Your task to perform on an android device: change timer sound Image 0: 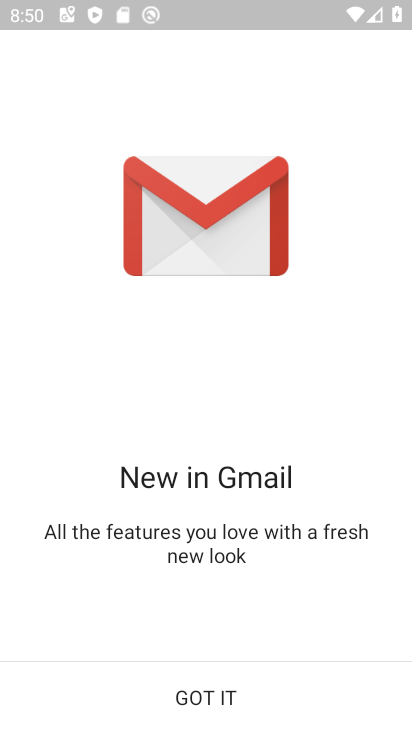
Step 0: press home button
Your task to perform on an android device: change timer sound Image 1: 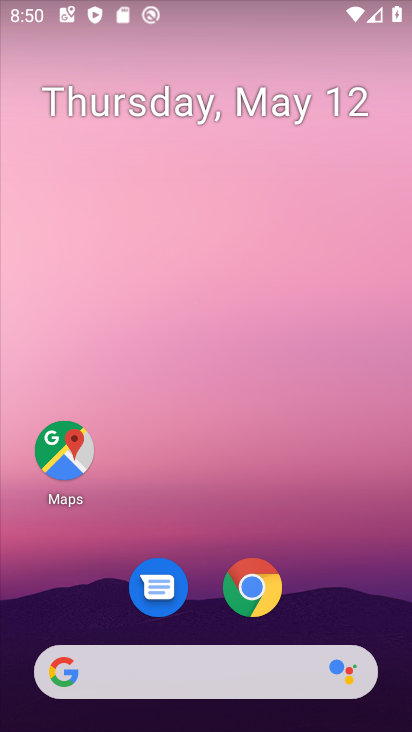
Step 1: drag from (328, 543) to (273, 168)
Your task to perform on an android device: change timer sound Image 2: 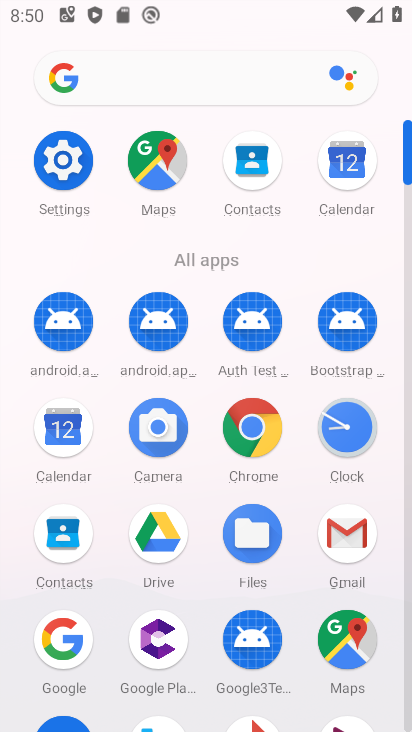
Step 2: click (336, 424)
Your task to perform on an android device: change timer sound Image 3: 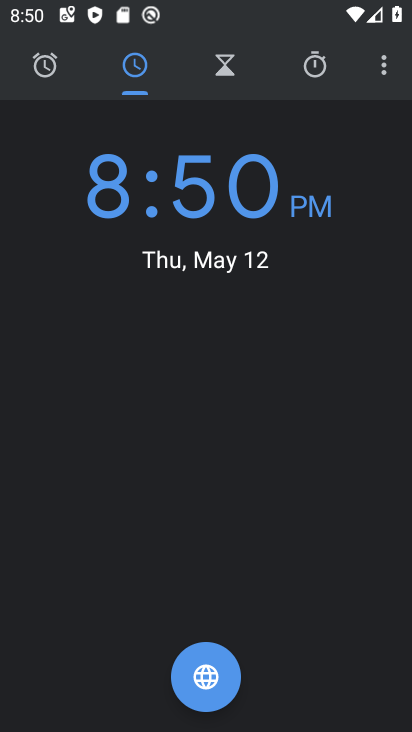
Step 3: click (388, 66)
Your task to perform on an android device: change timer sound Image 4: 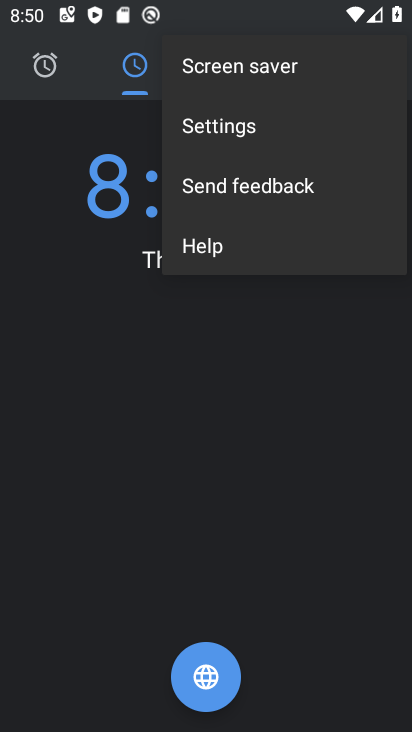
Step 4: click (248, 148)
Your task to perform on an android device: change timer sound Image 5: 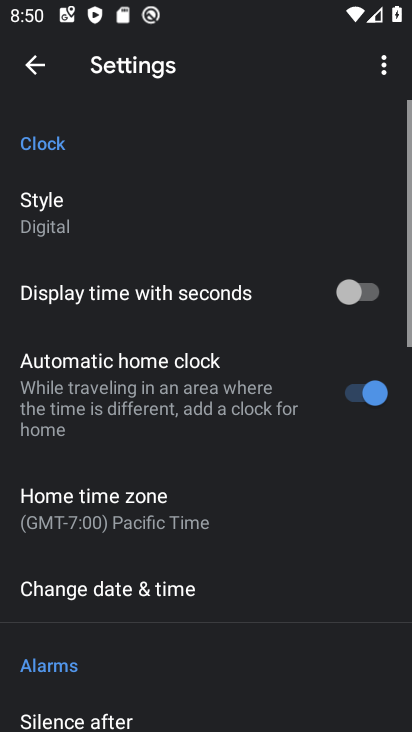
Step 5: drag from (174, 485) to (246, 57)
Your task to perform on an android device: change timer sound Image 6: 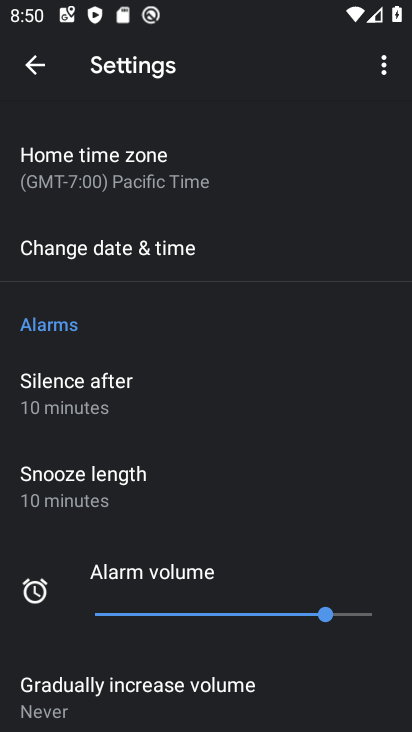
Step 6: drag from (150, 502) to (234, 190)
Your task to perform on an android device: change timer sound Image 7: 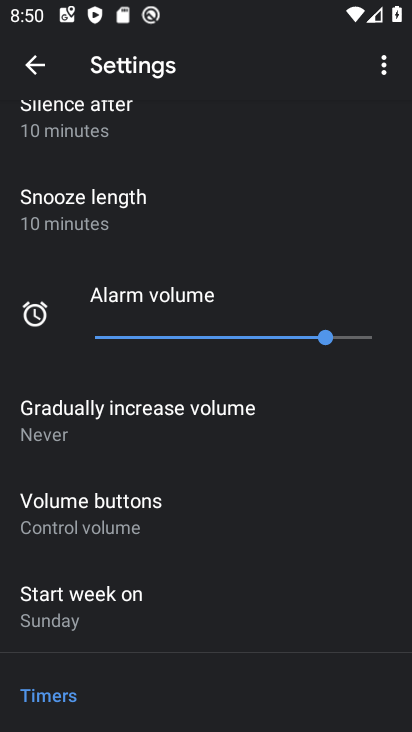
Step 7: drag from (235, 174) to (229, 594)
Your task to perform on an android device: change timer sound Image 8: 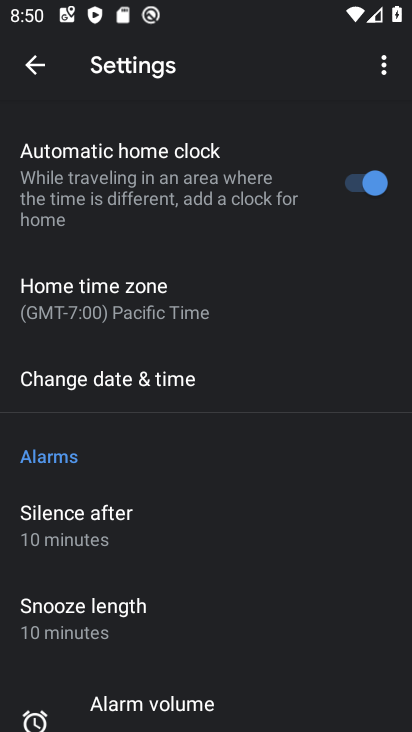
Step 8: drag from (213, 571) to (325, 73)
Your task to perform on an android device: change timer sound Image 9: 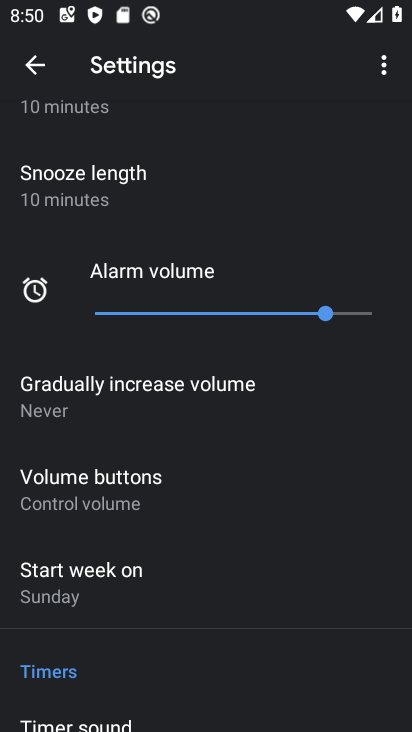
Step 9: drag from (227, 554) to (265, 135)
Your task to perform on an android device: change timer sound Image 10: 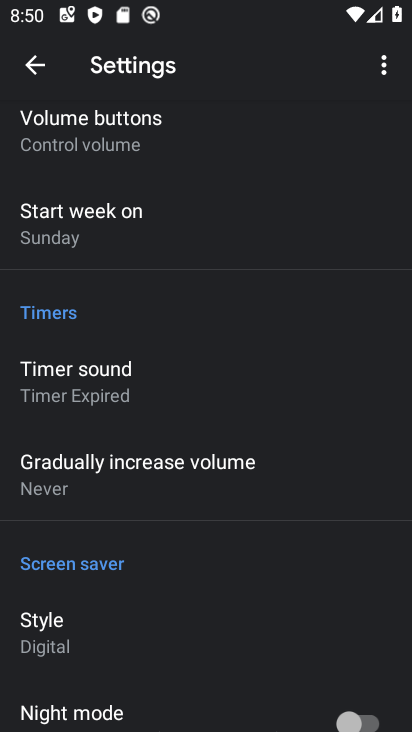
Step 10: click (117, 405)
Your task to perform on an android device: change timer sound Image 11: 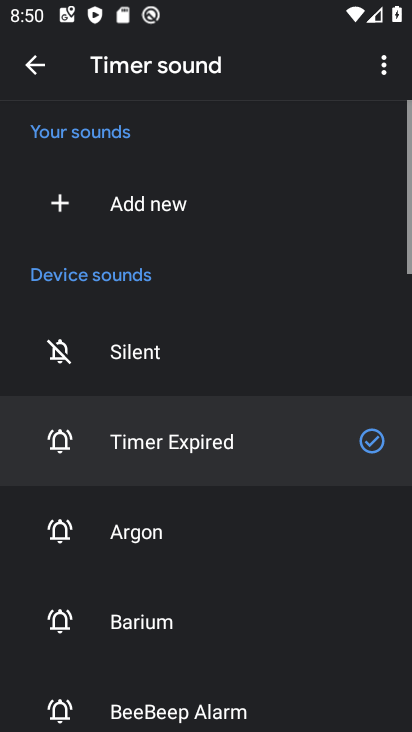
Step 11: drag from (231, 559) to (258, 330)
Your task to perform on an android device: change timer sound Image 12: 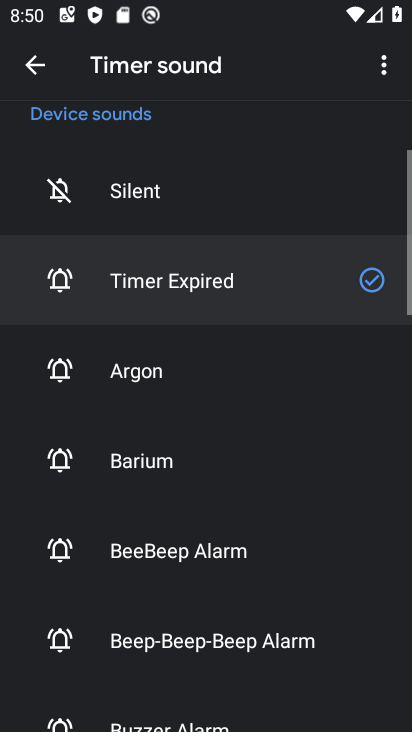
Step 12: click (180, 382)
Your task to perform on an android device: change timer sound Image 13: 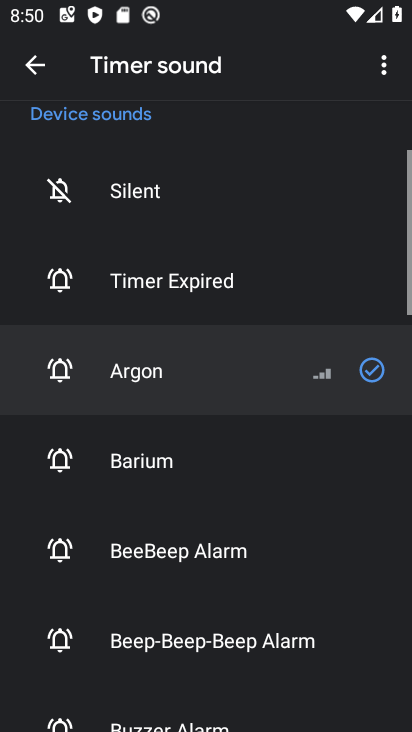
Step 13: task complete